Your task to perform on an android device: change keyboard looks Image 0: 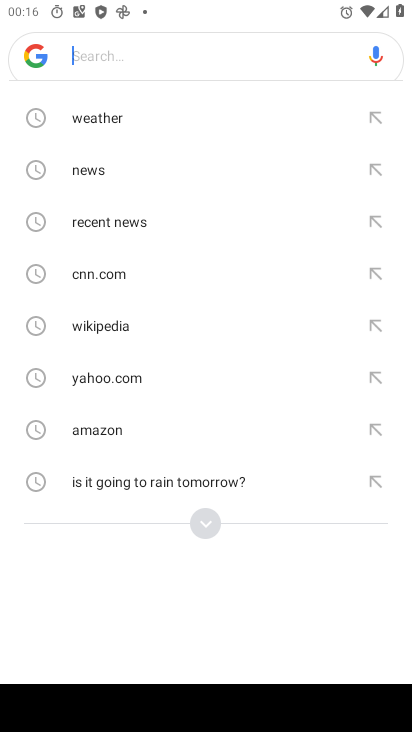
Step 0: press home button
Your task to perform on an android device: change keyboard looks Image 1: 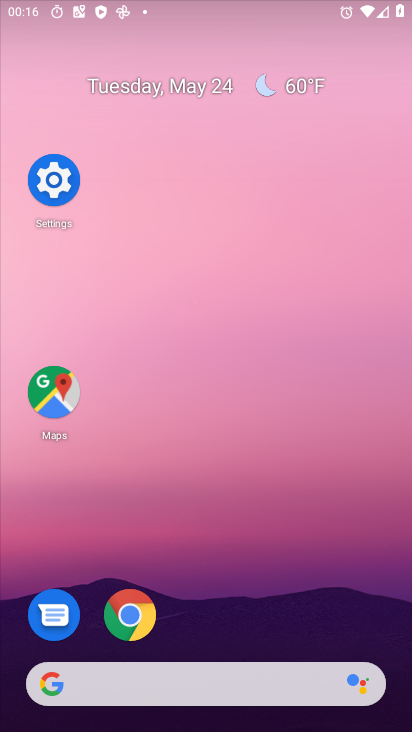
Step 1: drag from (227, 606) to (321, 1)
Your task to perform on an android device: change keyboard looks Image 2: 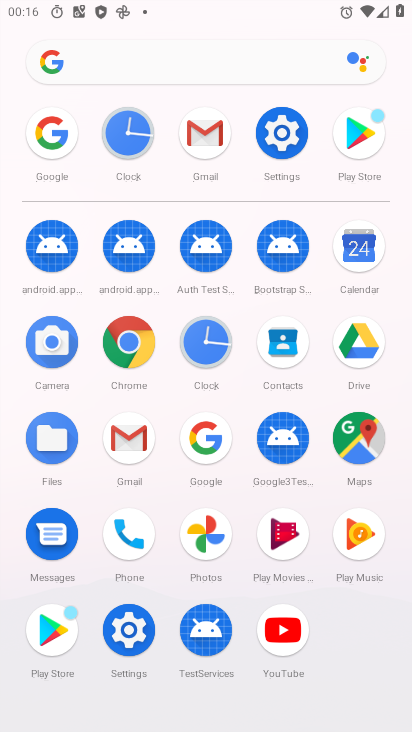
Step 2: click (279, 126)
Your task to perform on an android device: change keyboard looks Image 3: 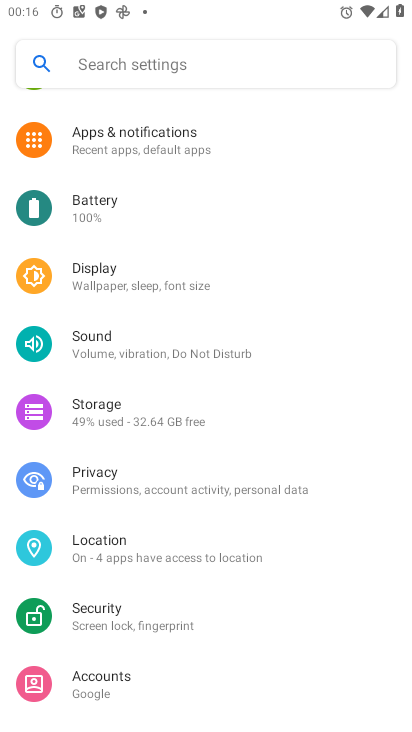
Step 3: drag from (174, 550) to (200, 47)
Your task to perform on an android device: change keyboard looks Image 4: 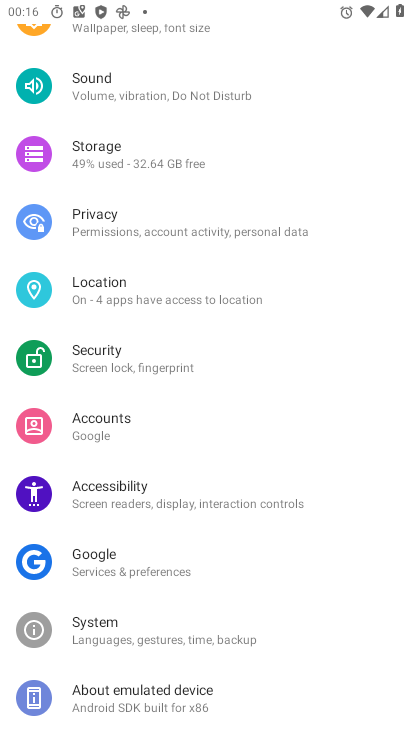
Step 4: click (97, 631)
Your task to perform on an android device: change keyboard looks Image 5: 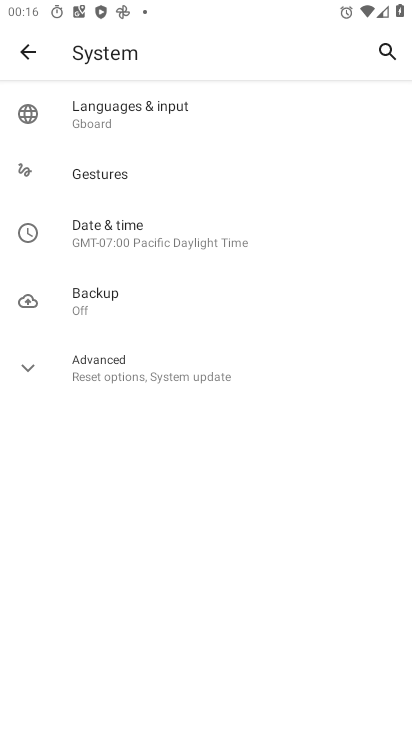
Step 5: click (168, 103)
Your task to perform on an android device: change keyboard looks Image 6: 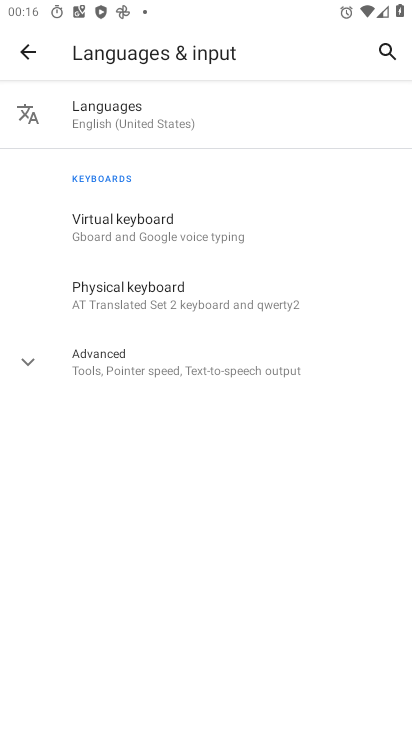
Step 6: click (128, 121)
Your task to perform on an android device: change keyboard looks Image 7: 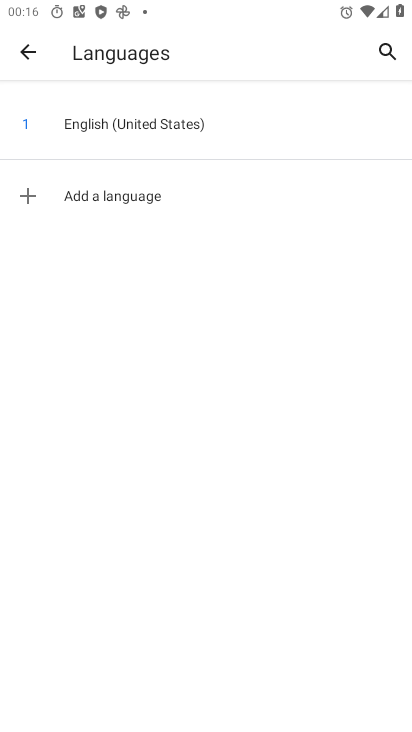
Step 7: press back button
Your task to perform on an android device: change keyboard looks Image 8: 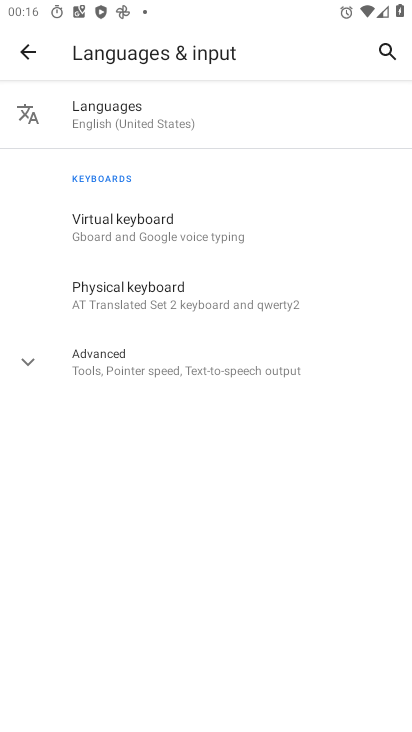
Step 8: click (113, 235)
Your task to perform on an android device: change keyboard looks Image 9: 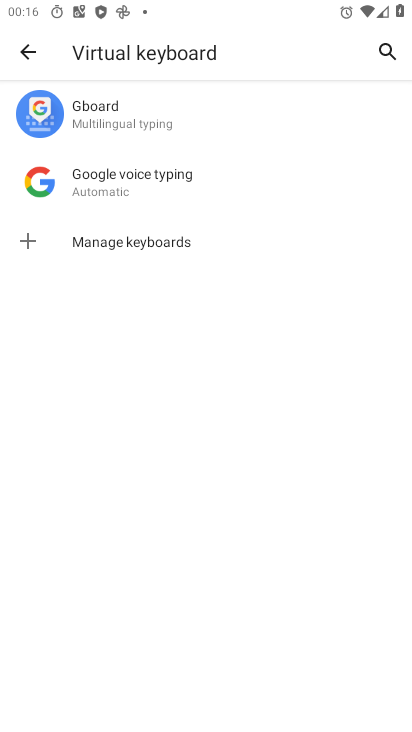
Step 9: click (120, 115)
Your task to perform on an android device: change keyboard looks Image 10: 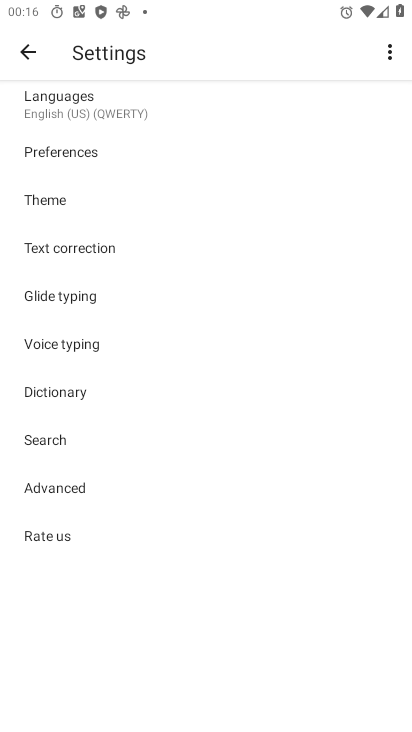
Step 10: click (106, 206)
Your task to perform on an android device: change keyboard looks Image 11: 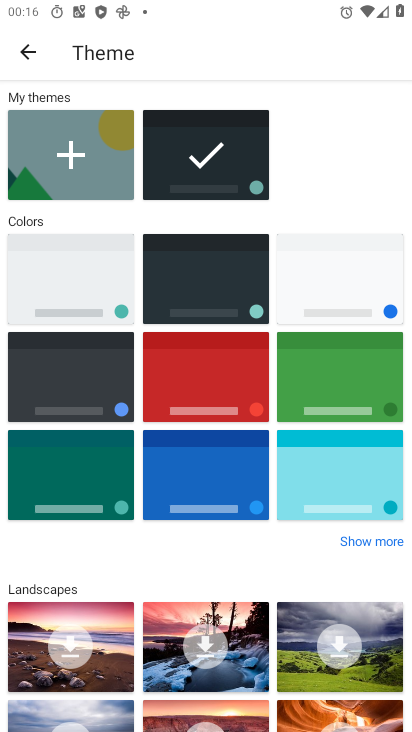
Step 11: click (190, 291)
Your task to perform on an android device: change keyboard looks Image 12: 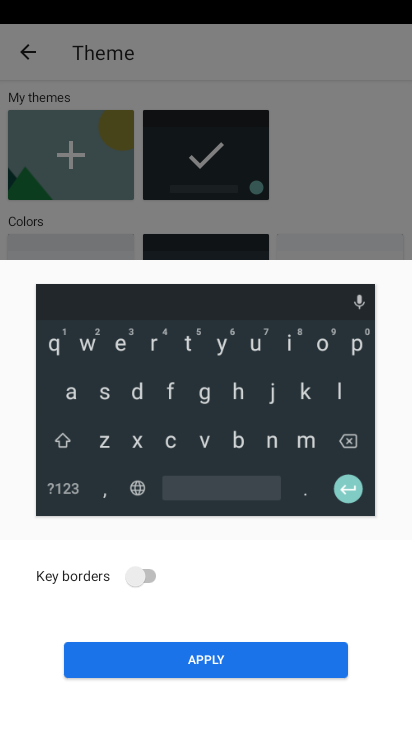
Step 12: click (238, 650)
Your task to perform on an android device: change keyboard looks Image 13: 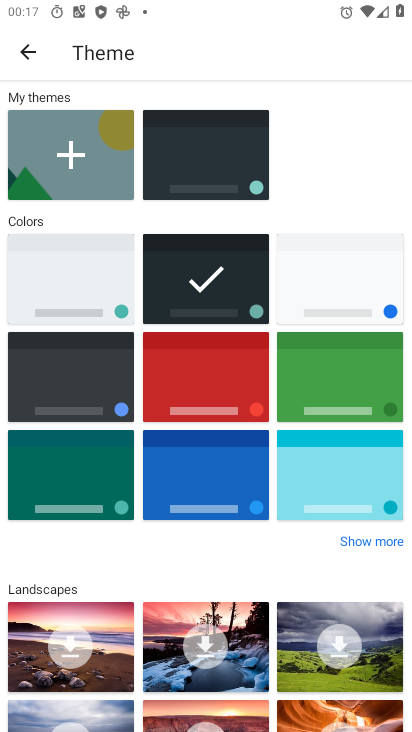
Step 13: task complete